Your task to perform on an android device: Open the calendar app, open the side menu, and click the "Day" option Image 0: 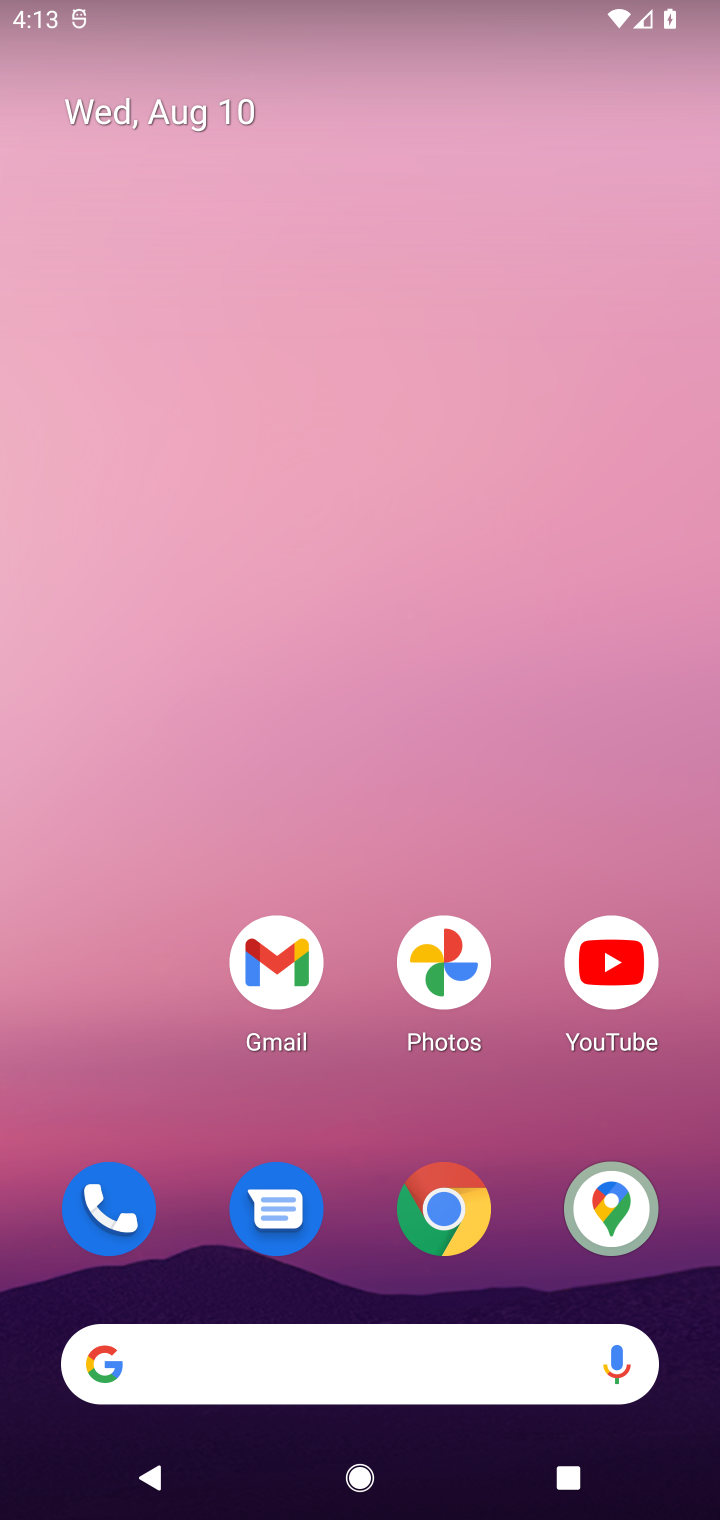
Step 0: click (152, 125)
Your task to perform on an android device: Open the calendar app, open the side menu, and click the "Day" option Image 1: 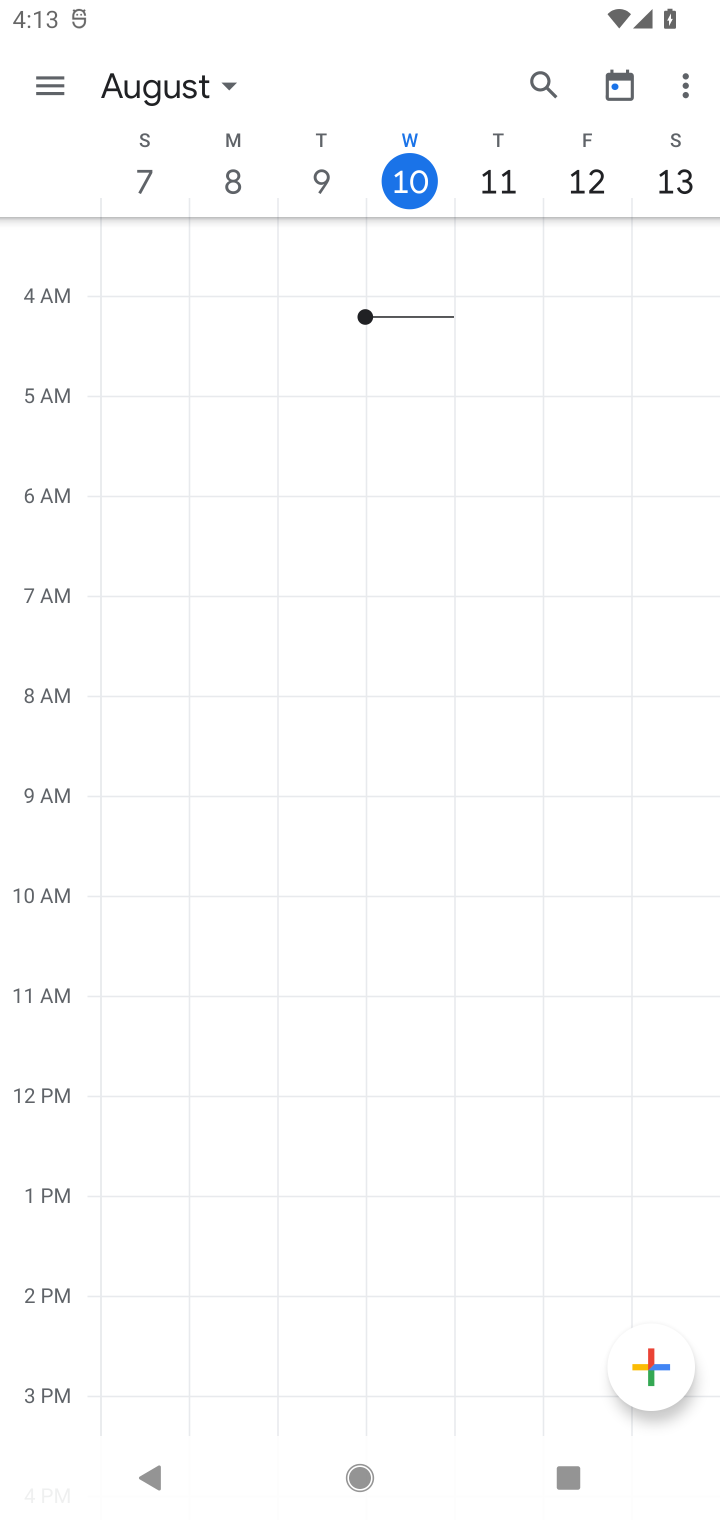
Step 1: click (34, 93)
Your task to perform on an android device: Open the calendar app, open the side menu, and click the "Day" option Image 2: 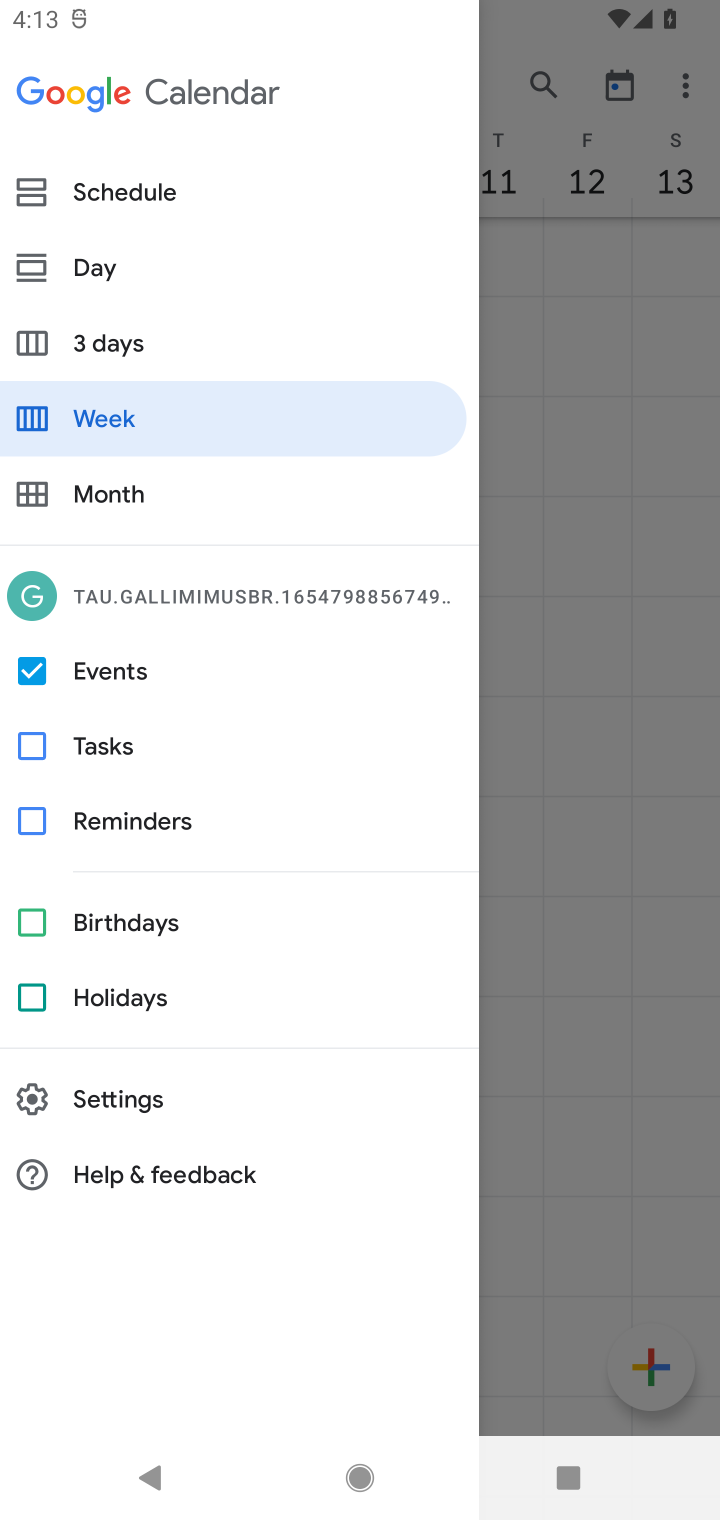
Step 2: click (34, 93)
Your task to perform on an android device: Open the calendar app, open the side menu, and click the "Day" option Image 3: 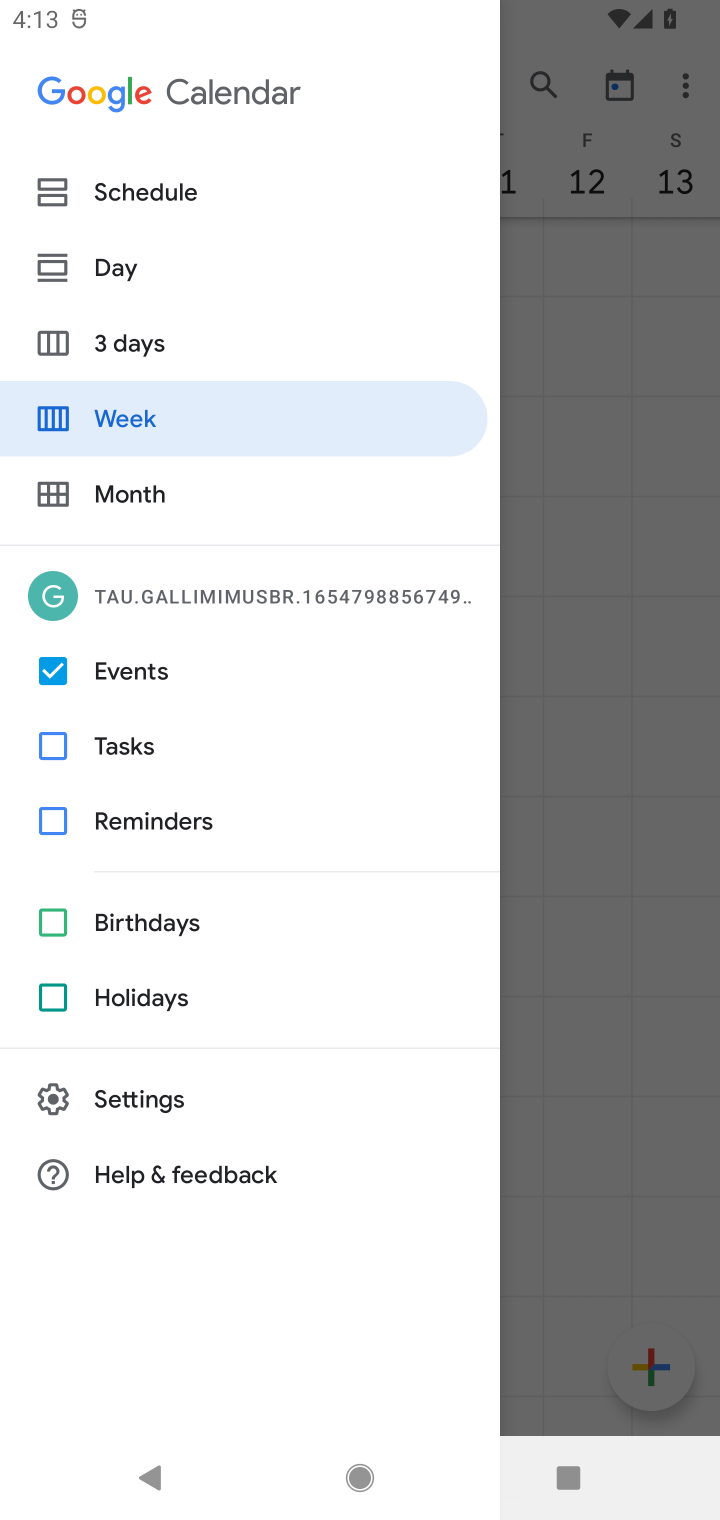
Step 3: click (150, 272)
Your task to perform on an android device: Open the calendar app, open the side menu, and click the "Day" option Image 4: 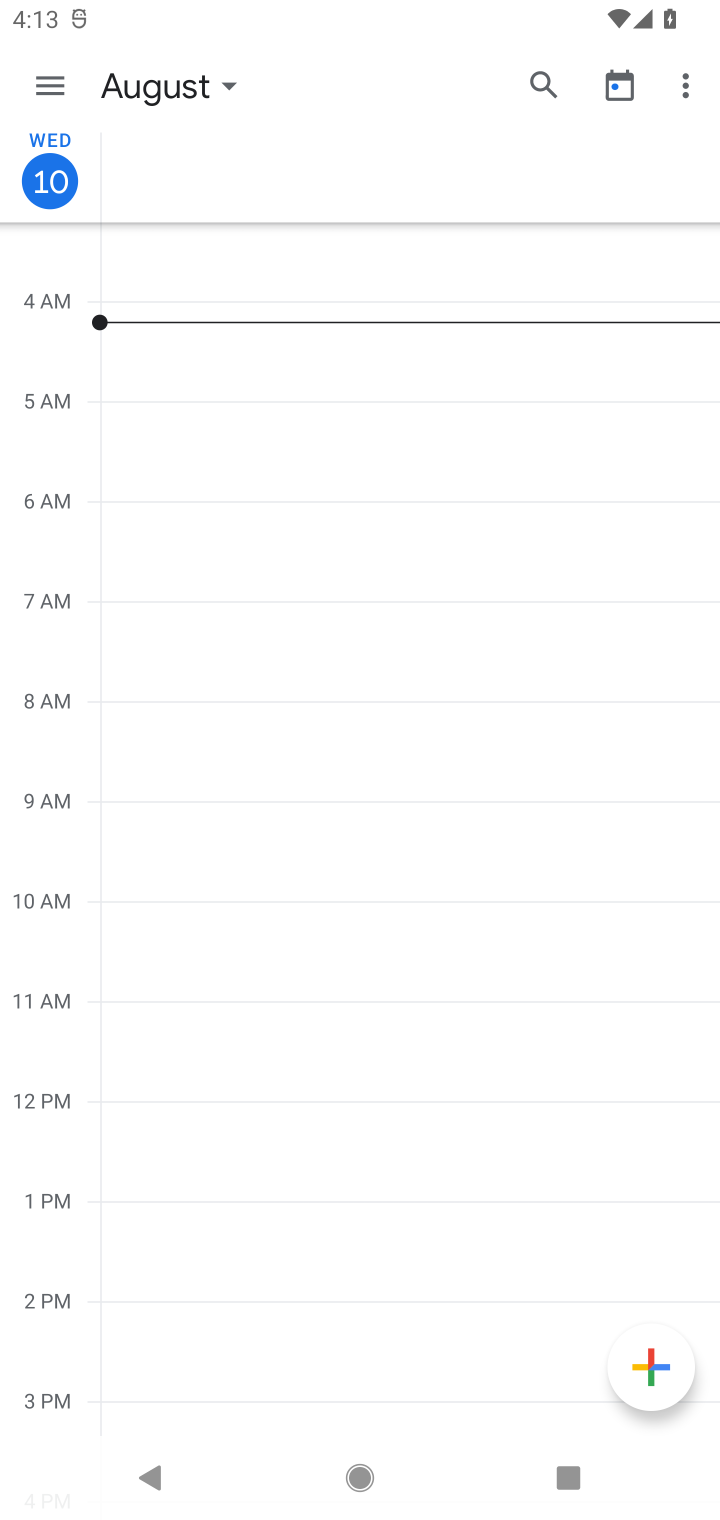
Step 4: task complete